Your task to perform on an android device: toggle notification dots Image 0: 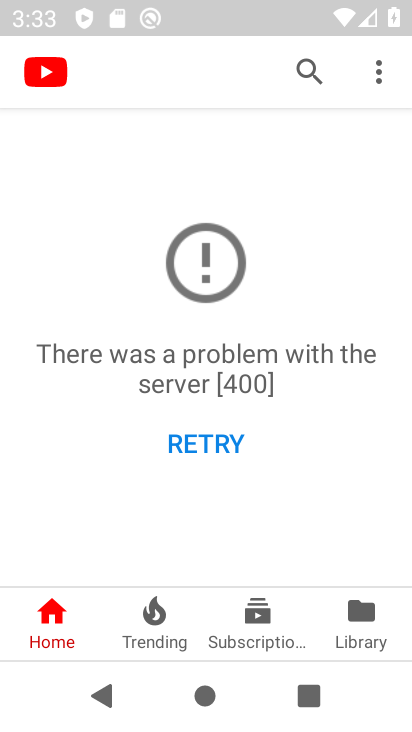
Step 0: press home button
Your task to perform on an android device: toggle notification dots Image 1: 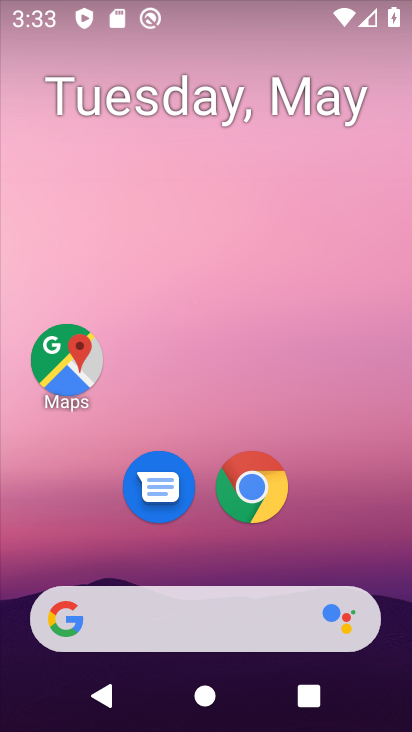
Step 1: drag from (204, 537) to (286, 51)
Your task to perform on an android device: toggle notification dots Image 2: 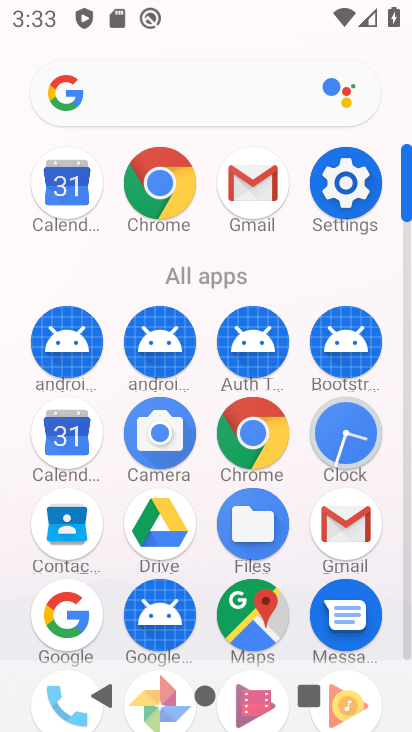
Step 2: click (354, 211)
Your task to perform on an android device: toggle notification dots Image 3: 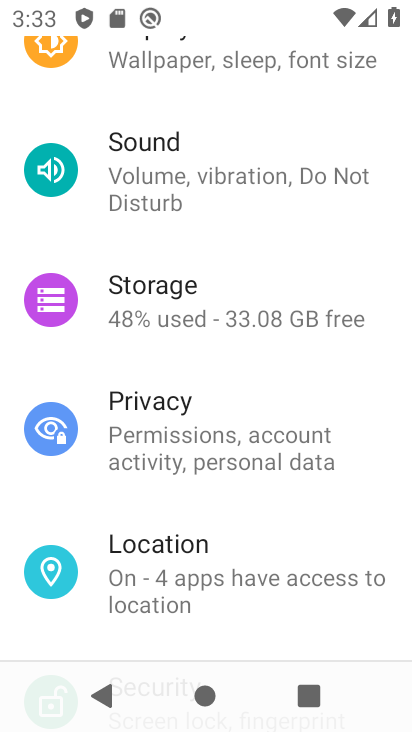
Step 3: drag from (234, 187) to (181, 656)
Your task to perform on an android device: toggle notification dots Image 4: 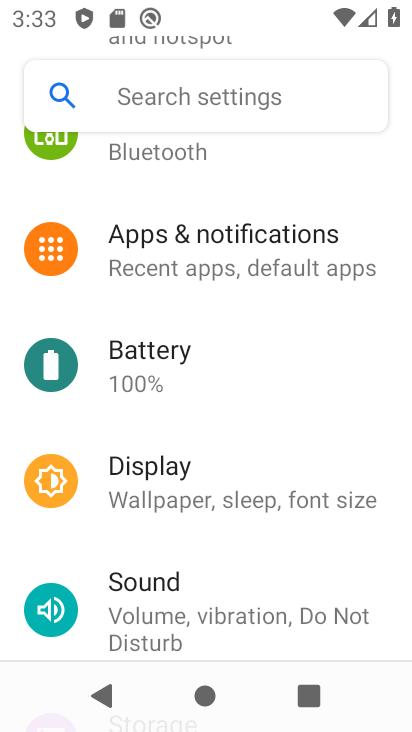
Step 4: click (229, 264)
Your task to perform on an android device: toggle notification dots Image 5: 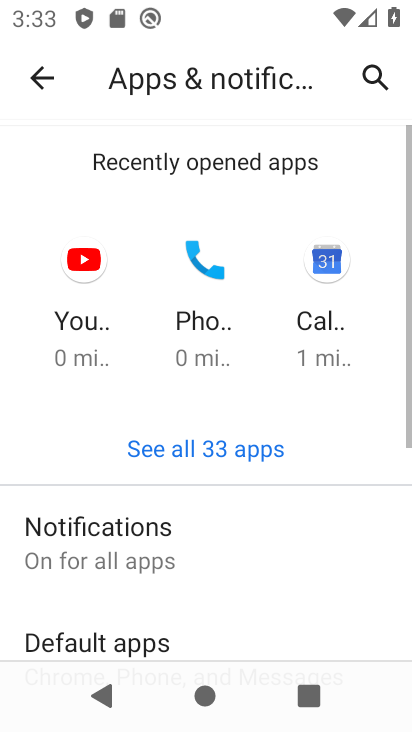
Step 5: drag from (142, 573) to (178, 464)
Your task to perform on an android device: toggle notification dots Image 6: 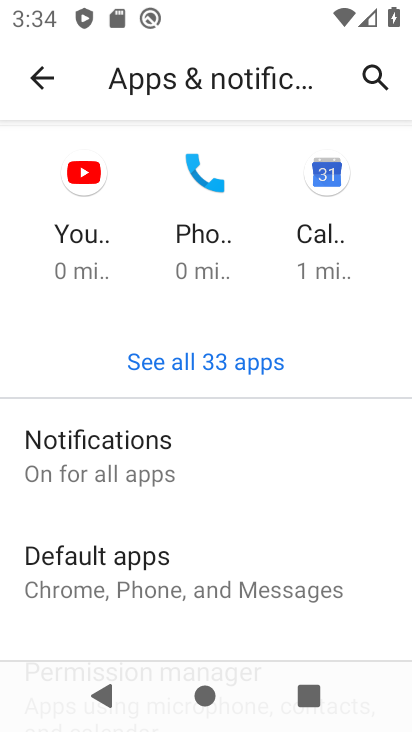
Step 6: click (154, 469)
Your task to perform on an android device: toggle notification dots Image 7: 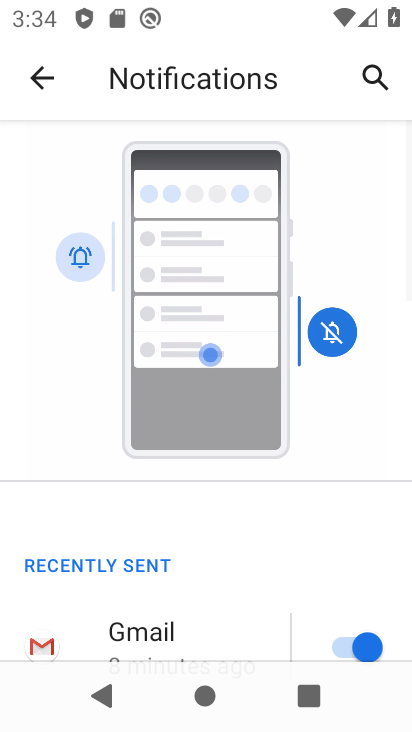
Step 7: drag from (223, 588) to (245, 276)
Your task to perform on an android device: toggle notification dots Image 8: 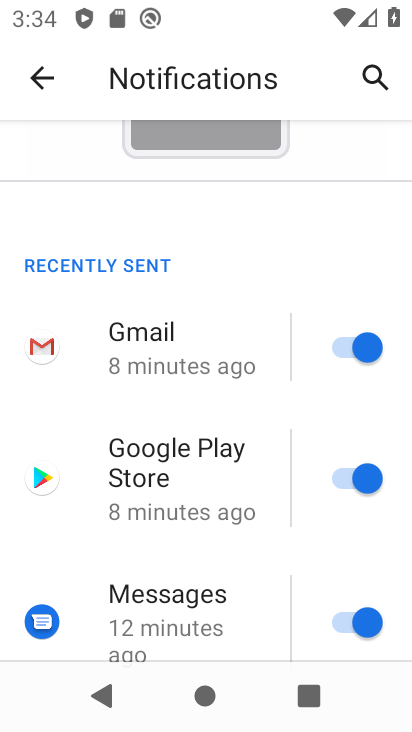
Step 8: drag from (183, 549) to (251, 130)
Your task to perform on an android device: toggle notification dots Image 9: 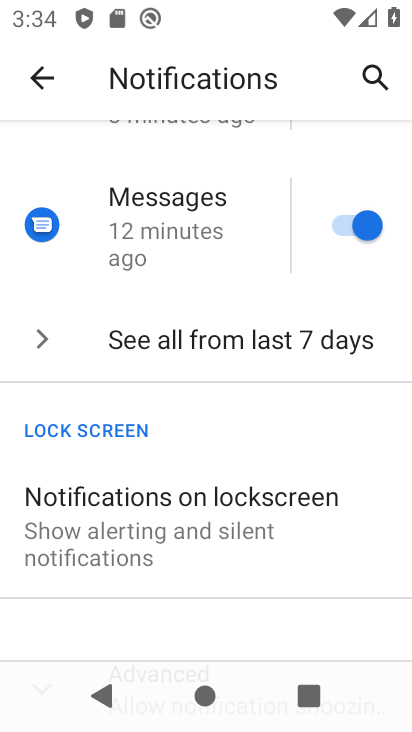
Step 9: drag from (186, 570) to (257, 187)
Your task to perform on an android device: toggle notification dots Image 10: 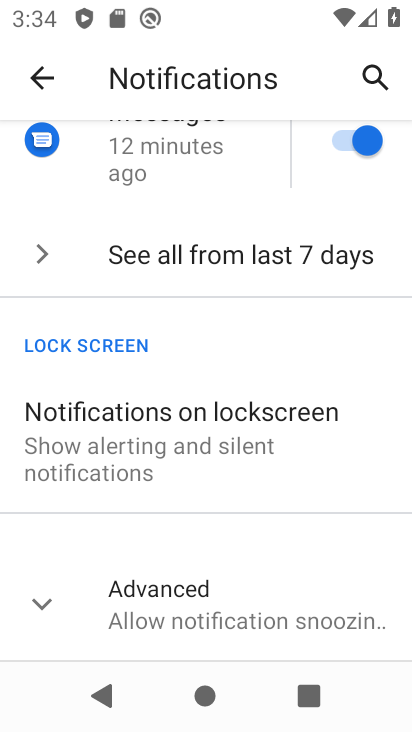
Step 10: click (61, 606)
Your task to perform on an android device: toggle notification dots Image 11: 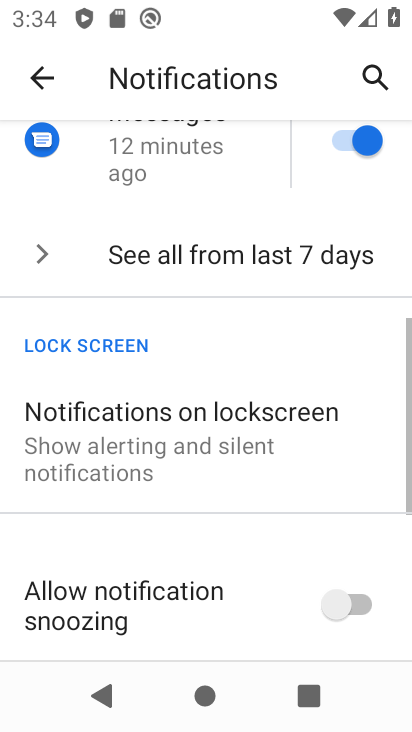
Step 11: drag from (261, 598) to (307, 216)
Your task to perform on an android device: toggle notification dots Image 12: 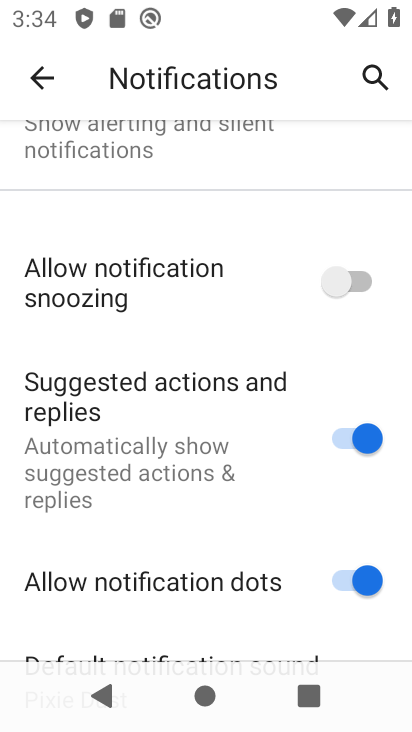
Step 12: click (333, 595)
Your task to perform on an android device: toggle notification dots Image 13: 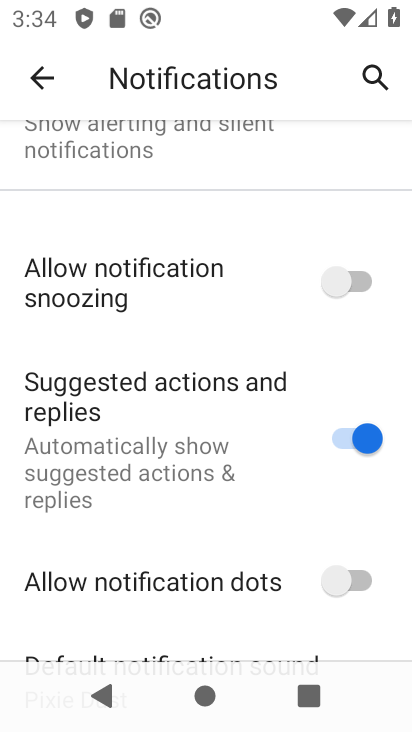
Step 13: task complete